Your task to perform on an android device: turn on improve location accuracy Image 0: 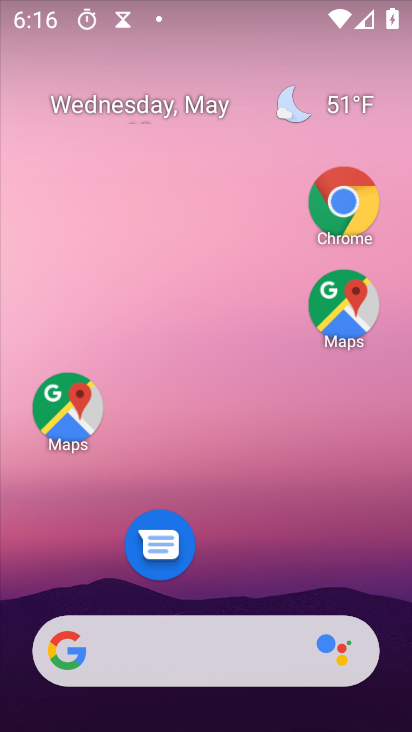
Step 0: drag from (206, 577) to (224, 124)
Your task to perform on an android device: turn on improve location accuracy Image 1: 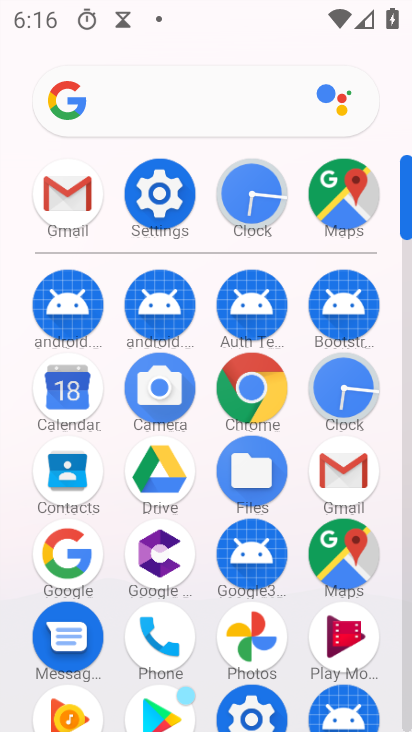
Step 1: click (159, 198)
Your task to perform on an android device: turn on improve location accuracy Image 2: 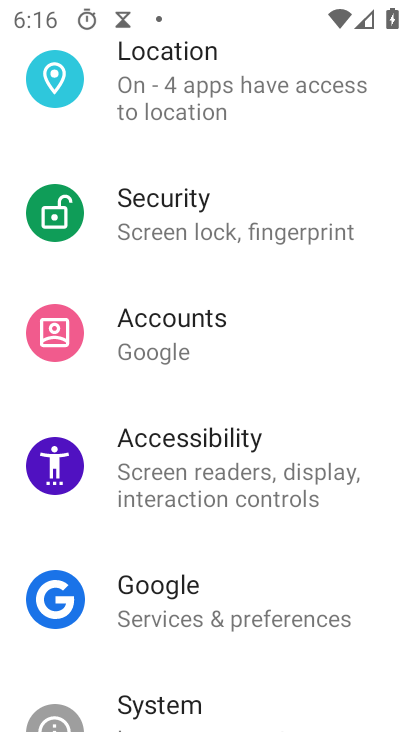
Step 2: click (163, 220)
Your task to perform on an android device: turn on improve location accuracy Image 3: 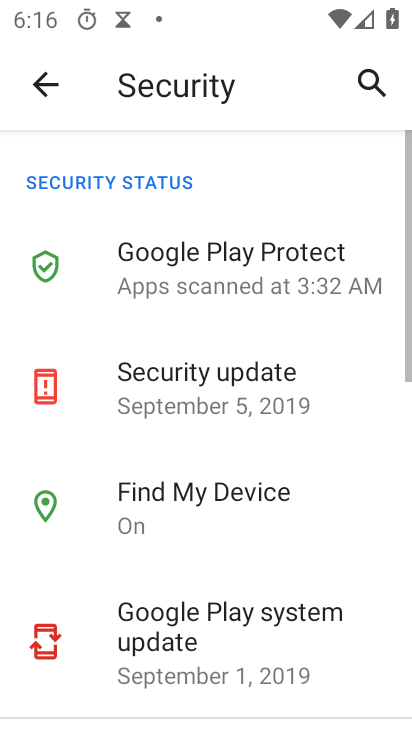
Step 3: click (36, 78)
Your task to perform on an android device: turn on improve location accuracy Image 4: 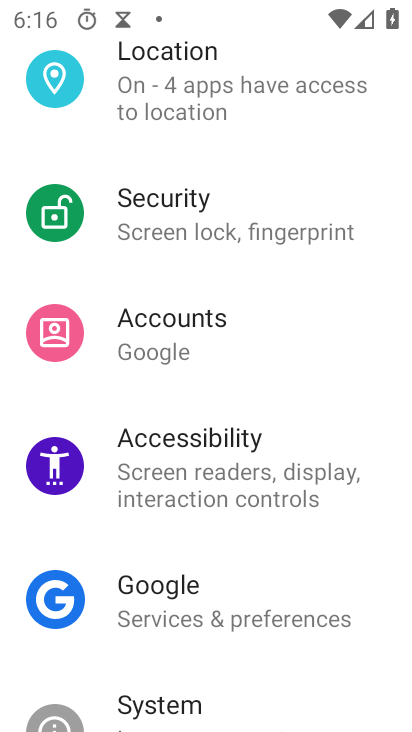
Step 4: click (171, 69)
Your task to perform on an android device: turn on improve location accuracy Image 5: 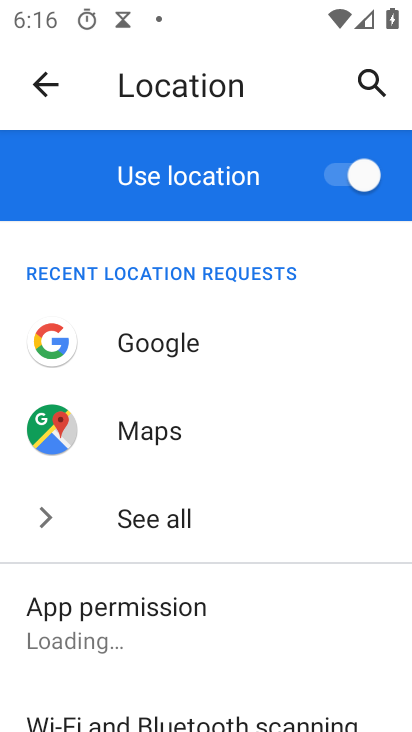
Step 5: drag from (186, 559) to (173, 165)
Your task to perform on an android device: turn on improve location accuracy Image 6: 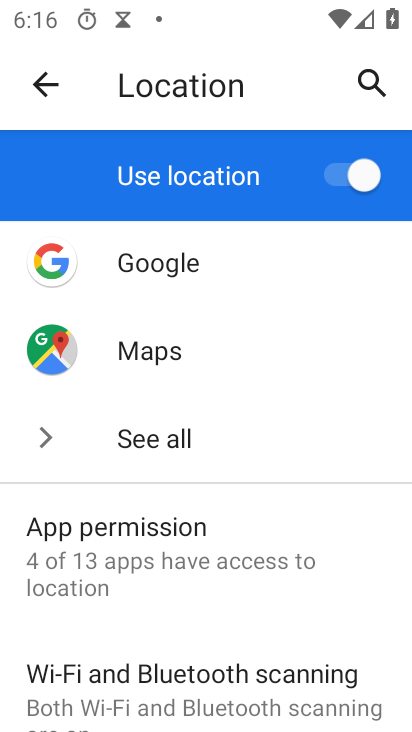
Step 6: drag from (177, 631) to (178, 359)
Your task to perform on an android device: turn on improve location accuracy Image 7: 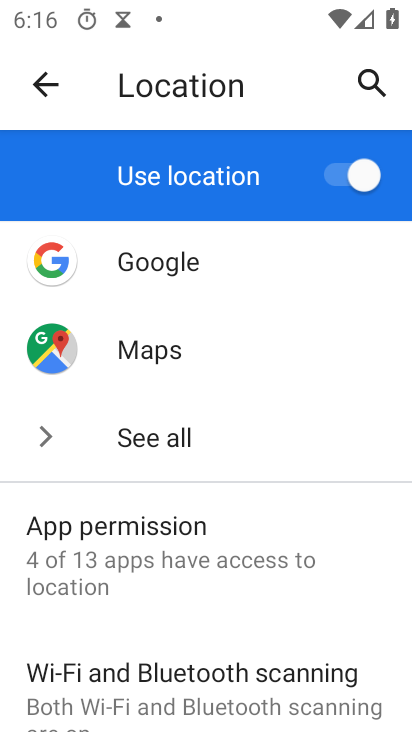
Step 7: drag from (181, 570) to (228, 231)
Your task to perform on an android device: turn on improve location accuracy Image 8: 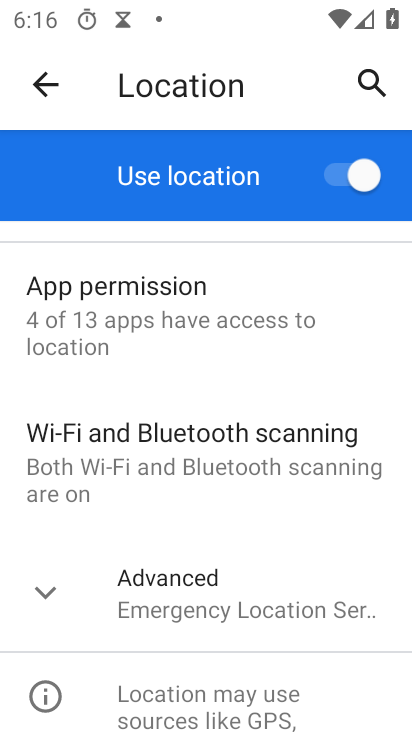
Step 8: click (146, 603)
Your task to perform on an android device: turn on improve location accuracy Image 9: 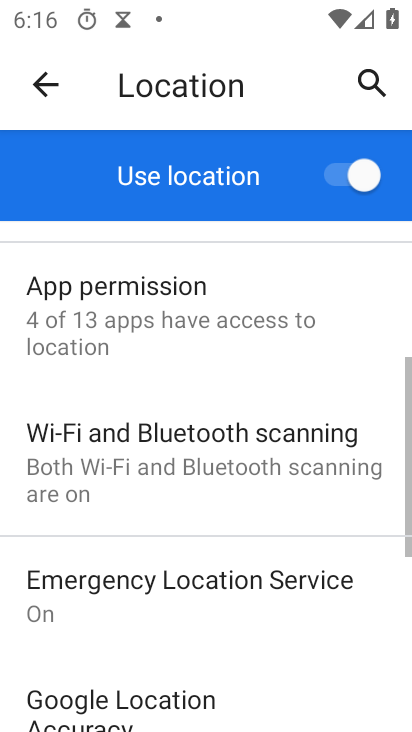
Step 9: drag from (183, 689) to (221, 276)
Your task to perform on an android device: turn on improve location accuracy Image 10: 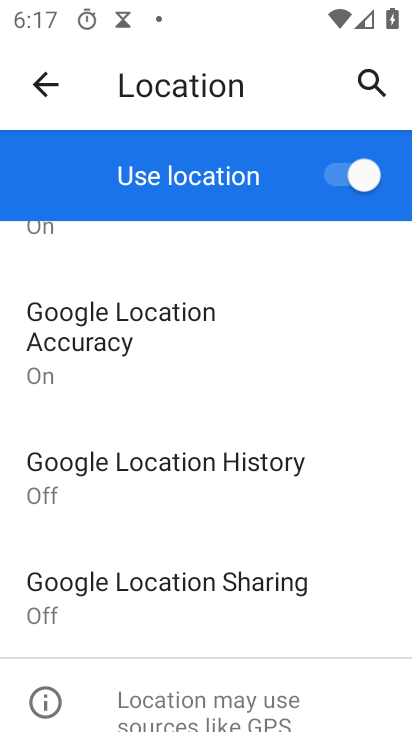
Step 10: drag from (153, 456) to (152, 358)
Your task to perform on an android device: turn on improve location accuracy Image 11: 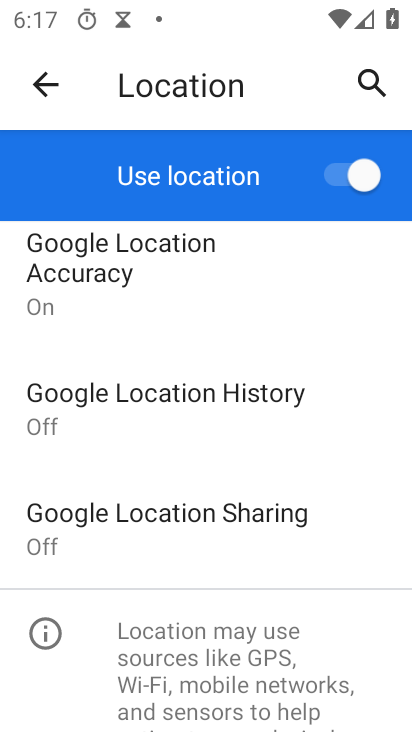
Step 11: click (94, 275)
Your task to perform on an android device: turn on improve location accuracy Image 12: 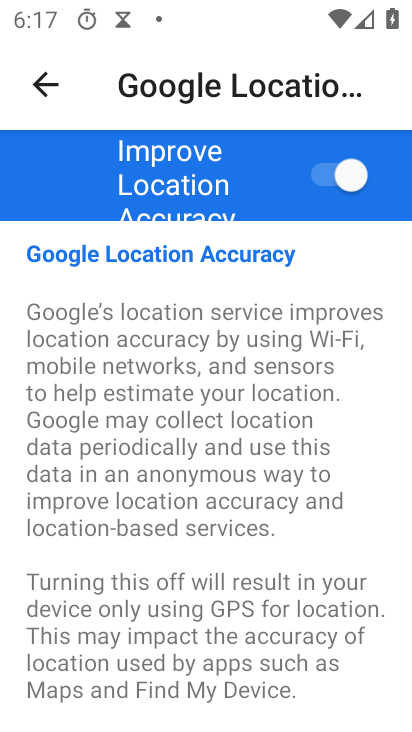
Step 12: task complete